Your task to perform on an android device: Open Wikipedia Image 0: 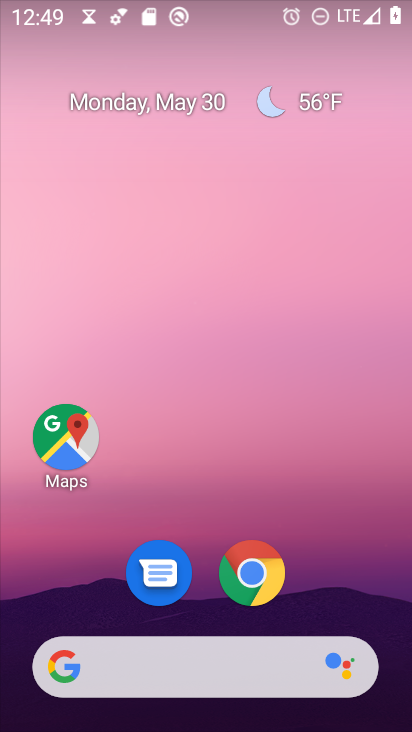
Step 0: drag from (313, 555) to (353, 1)
Your task to perform on an android device: Open Wikipedia Image 1: 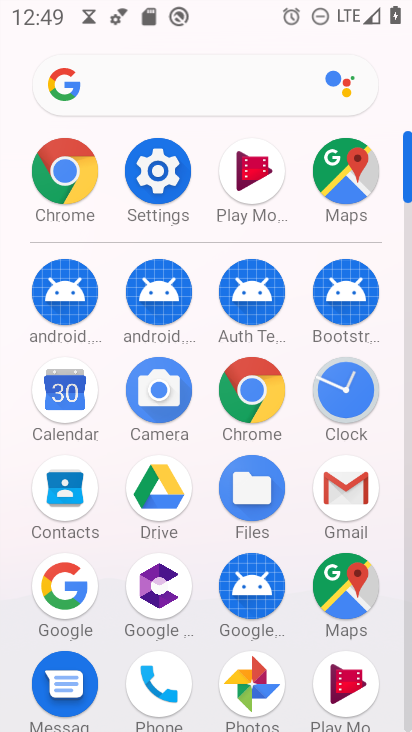
Step 1: click (262, 416)
Your task to perform on an android device: Open Wikipedia Image 2: 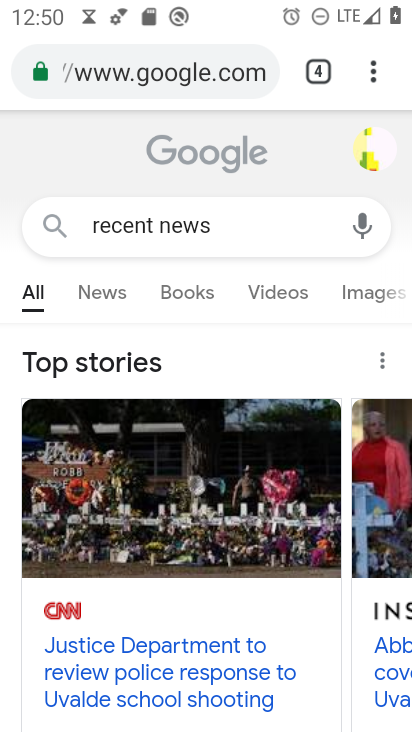
Step 2: drag from (372, 60) to (146, 141)
Your task to perform on an android device: Open Wikipedia Image 3: 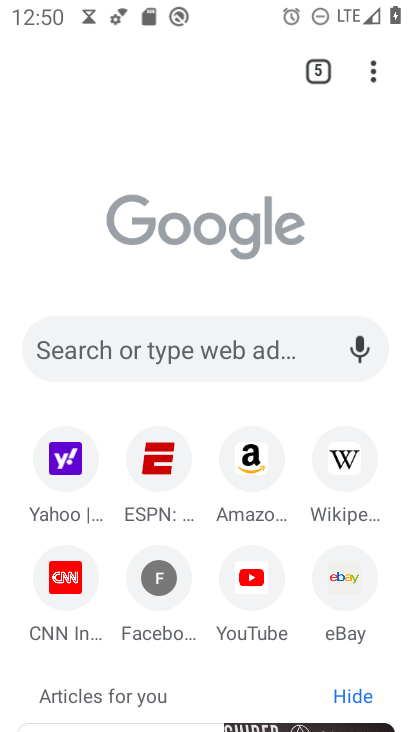
Step 3: click (347, 479)
Your task to perform on an android device: Open Wikipedia Image 4: 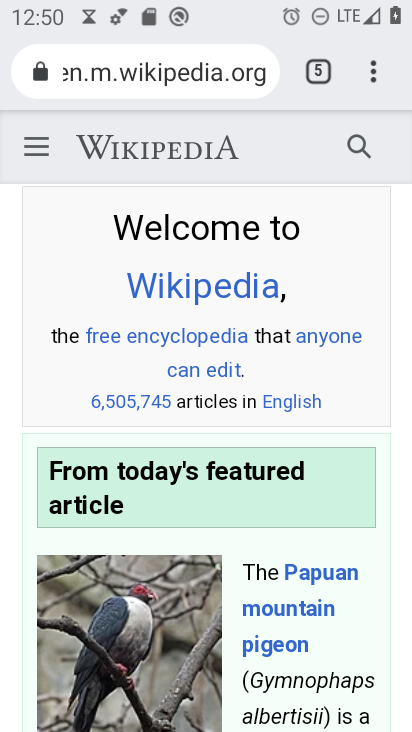
Step 4: task complete